Your task to perform on an android device: see sites visited before in the chrome app Image 0: 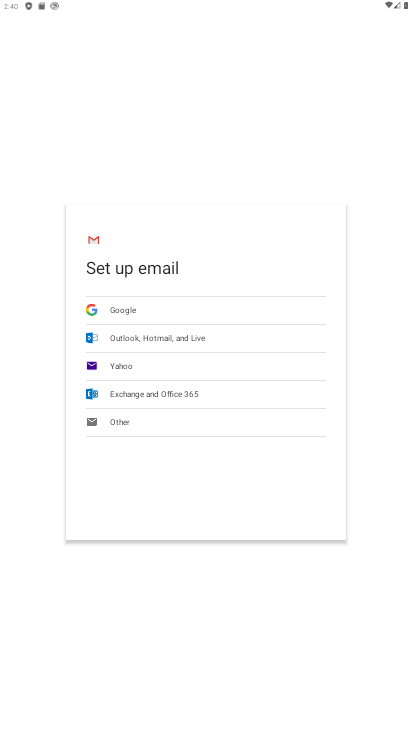
Step 0: press home button
Your task to perform on an android device: see sites visited before in the chrome app Image 1: 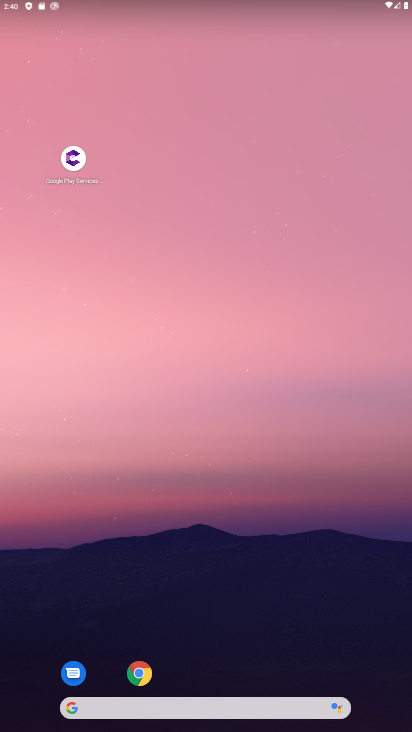
Step 1: drag from (287, 634) to (367, 225)
Your task to perform on an android device: see sites visited before in the chrome app Image 2: 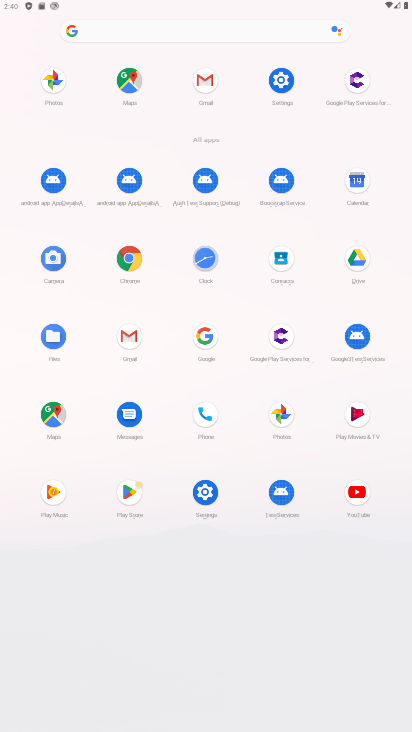
Step 2: click (135, 269)
Your task to perform on an android device: see sites visited before in the chrome app Image 3: 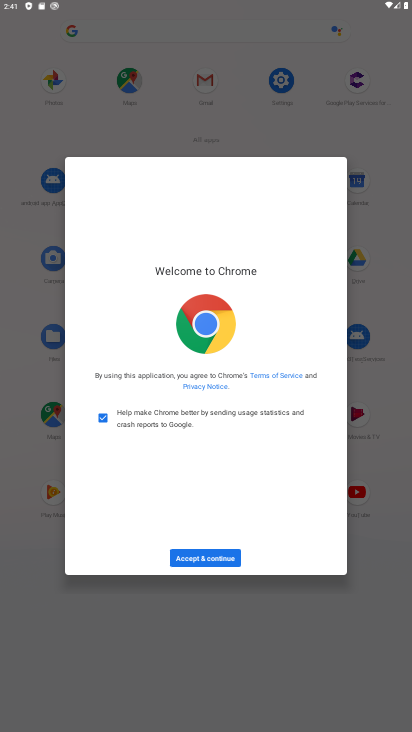
Step 3: click (235, 564)
Your task to perform on an android device: see sites visited before in the chrome app Image 4: 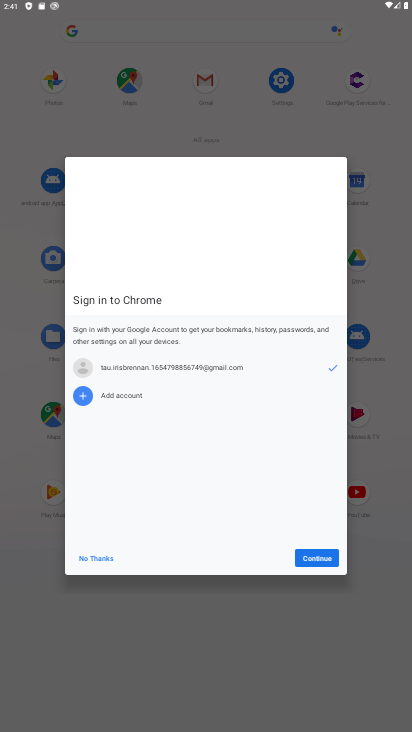
Step 4: click (309, 559)
Your task to perform on an android device: see sites visited before in the chrome app Image 5: 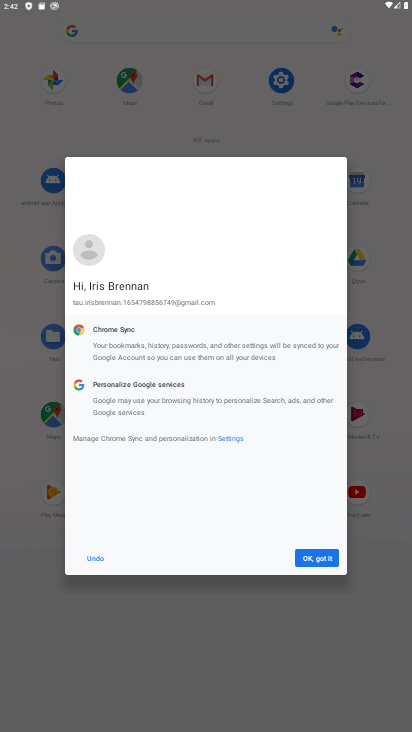
Step 5: click (299, 556)
Your task to perform on an android device: see sites visited before in the chrome app Image 6: 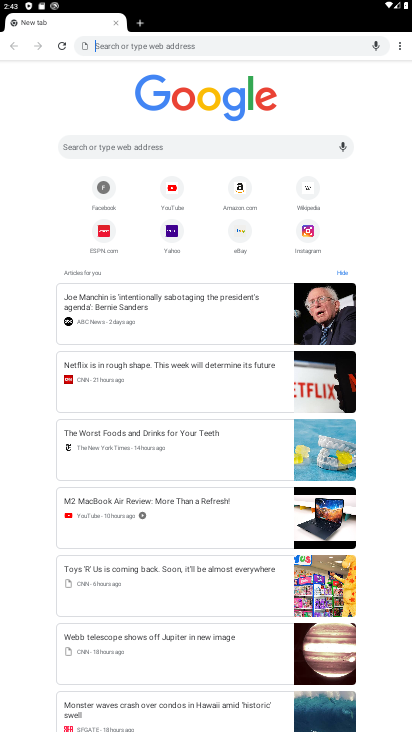
Step 6: task complete